Your task to perform on an android device: Go to Yahoo.com Image 0: 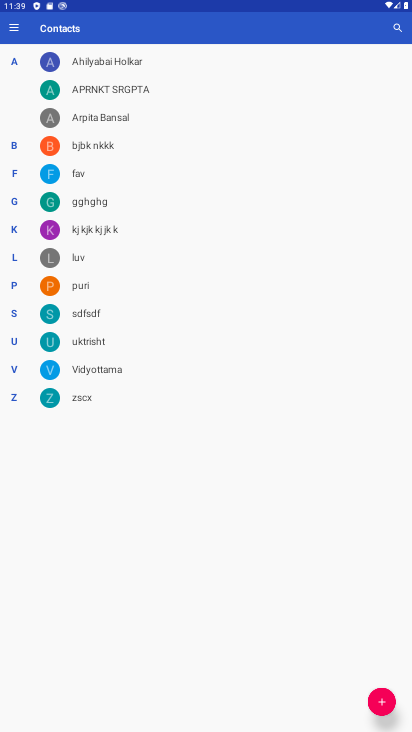
Step 0: press home button
Your task to perform on an android device: Go to Yahoo.com Image 1: 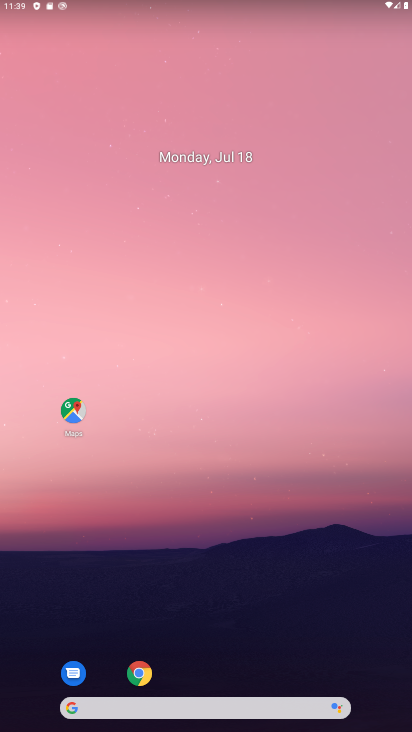
Step 1: click (136, 681)
Your task to perform on an android device: Go to Yahoo.com Image 2: 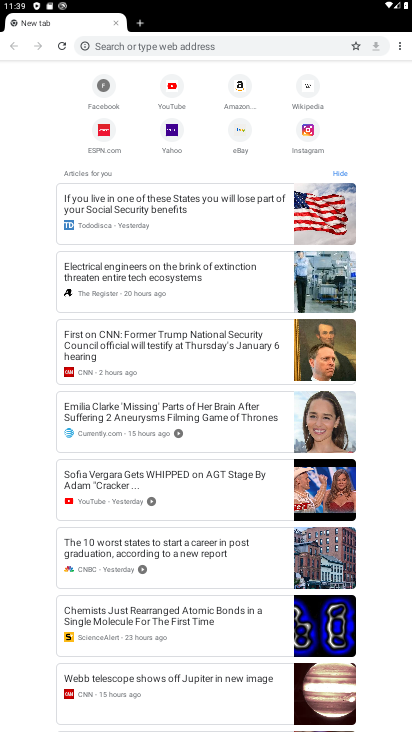
Step 2: click (167, 125)
Your task to perform on an android device: Go to Yahoo.com Image 3: 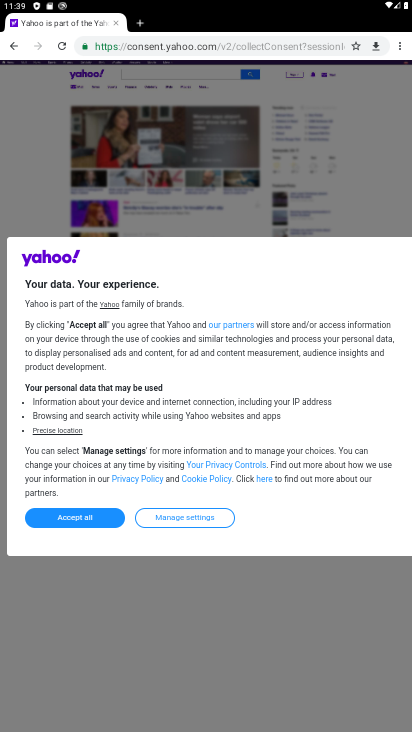
Step 3: task complete